Your task to perform on an android device: change the clock style Image 0: 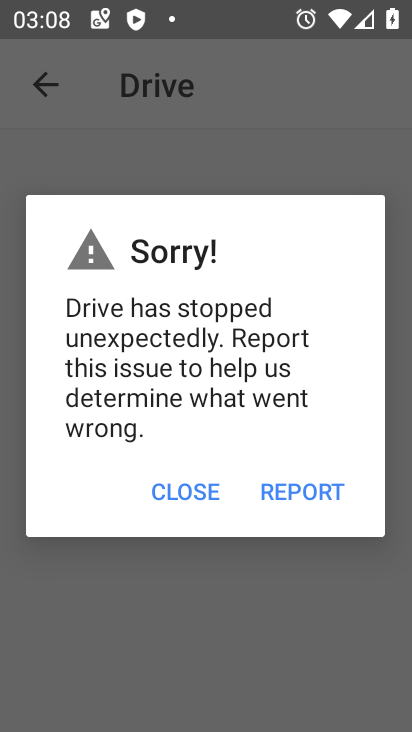
Step 0: press home button
Your task to perform on an android device: change the clock style Image 1: 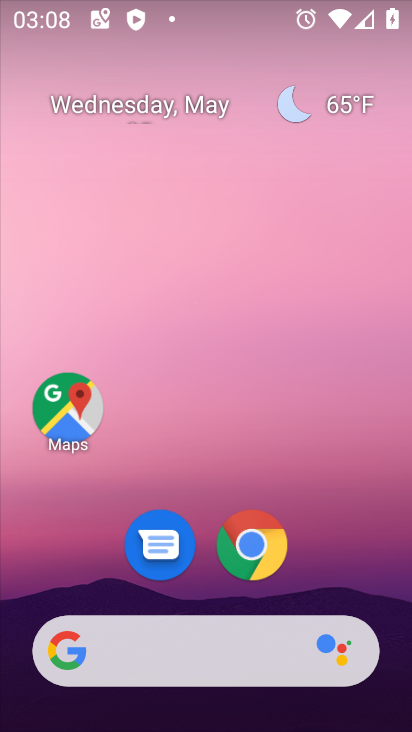
Step 1: drag from (338, 507) to (221, 7)
Your task to perform on an android device: change the clock style Image 2: 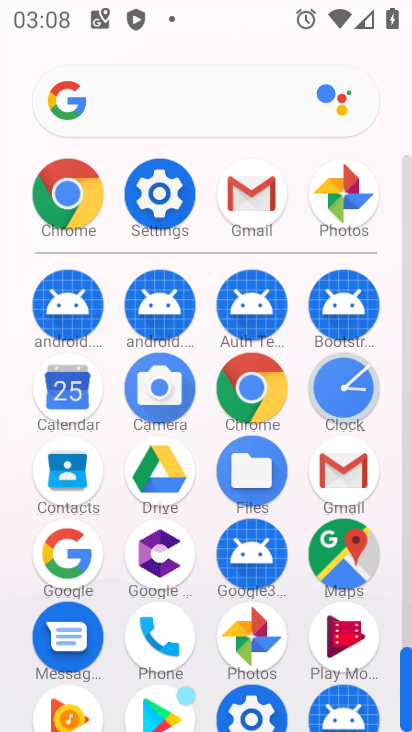
Step 2: click (338, 388)
Your task to perform on an android device: change the clock style Image 3: 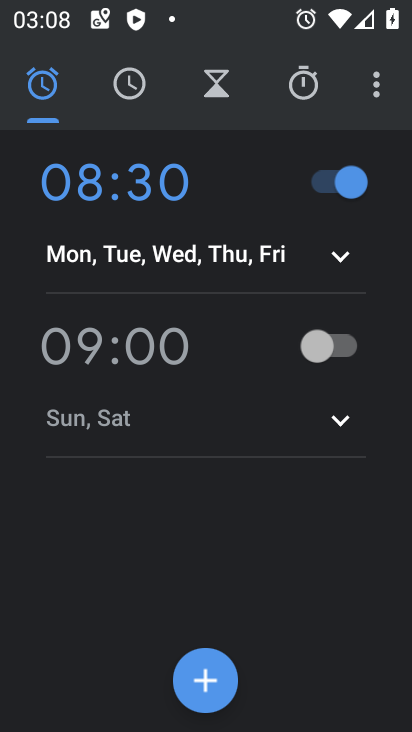
Step 3: click (380, 84)
Your task to perform on an android device: change the clock style Image 4: 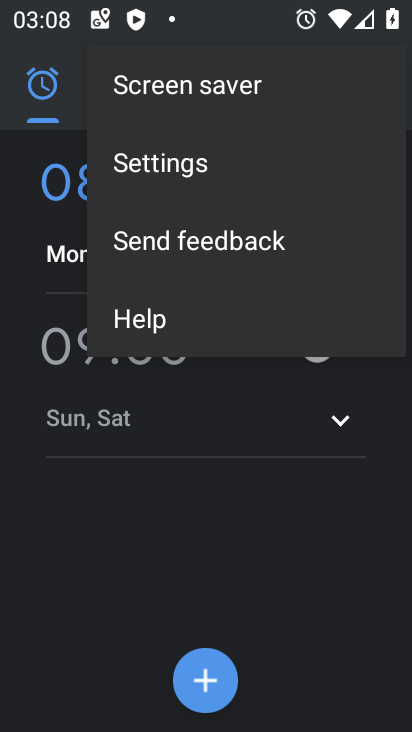
Step 4: click (299, 153)
Your task to perform on an android device: change the clock style Image 5: 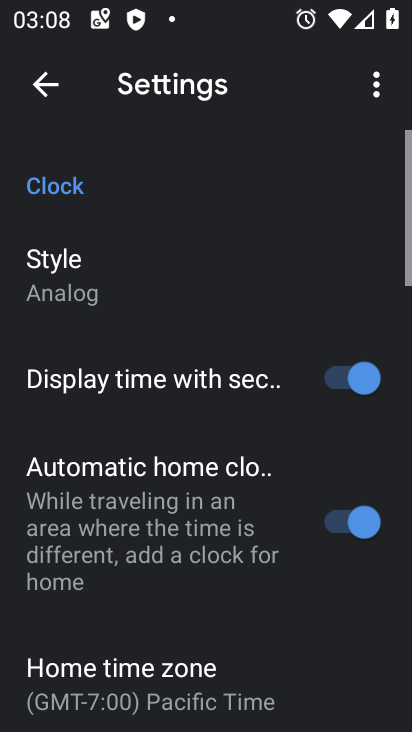
Step 5: click (119, 264)
Your task to perform on an android device: change the clock style Image 6: 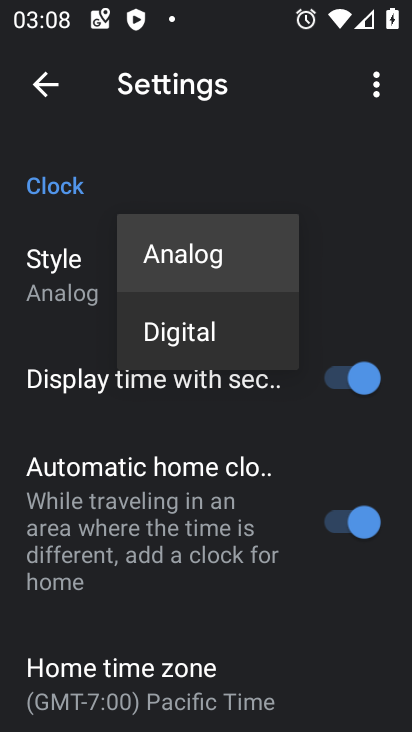
Step 6: click (170, 331)
Your task to perform on an android device: change the clock style Image 7: 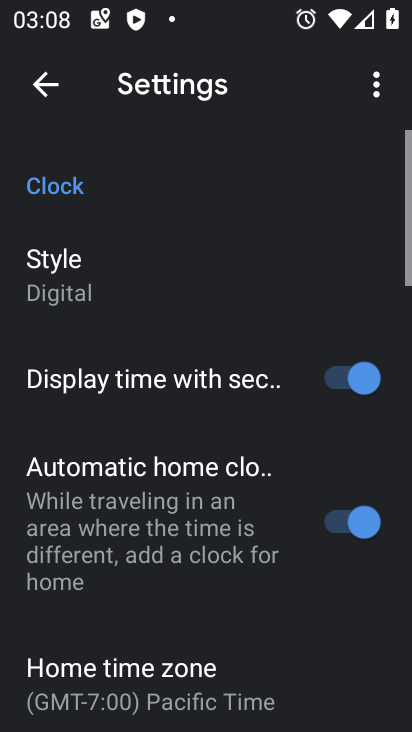
Step 7: task complete